Your task to perform on an android device: turn off picture-in-picture Image 0: 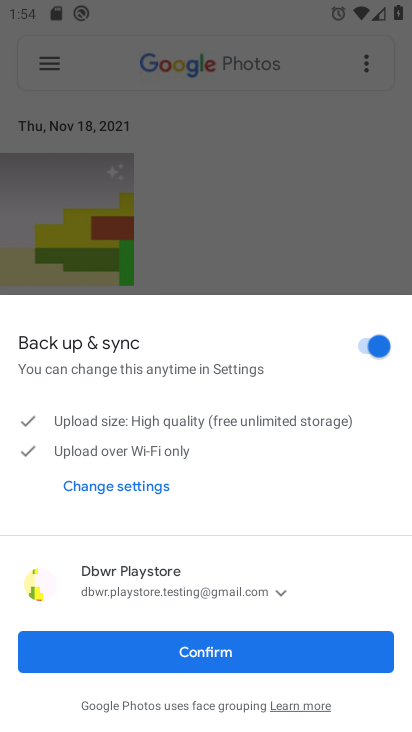
Step 0: press home button
Your task to perform on an android device: turn off picture-in-picture Image 1: 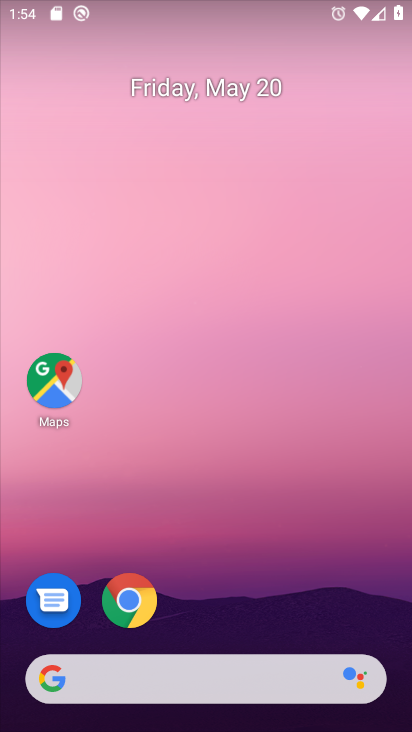
Step 1: click (135, 599)
Your task to perform on an android device: turn off picture-in-picture Image 2: 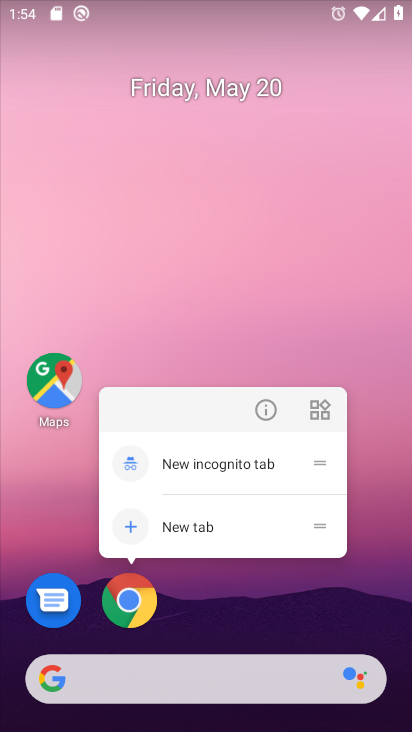
Step 2: click (268, 414)
Your task to perform on an android device: turn off picture-in-picture Image 3: 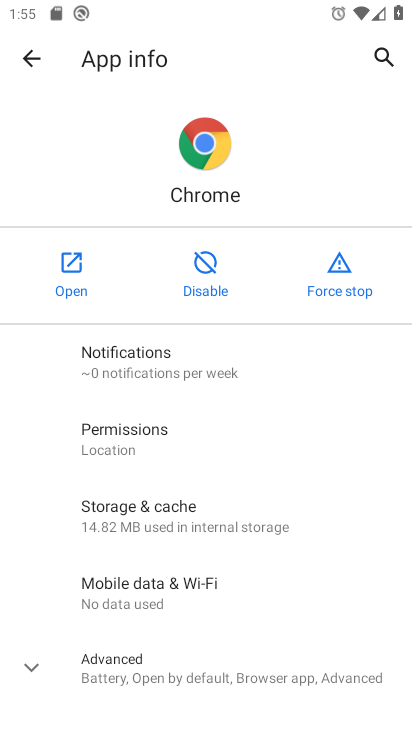
Step 3: drag from (148, 573) to (228, 238)
Your task to perform on an android device: turn off picture-in-picture Image 4: 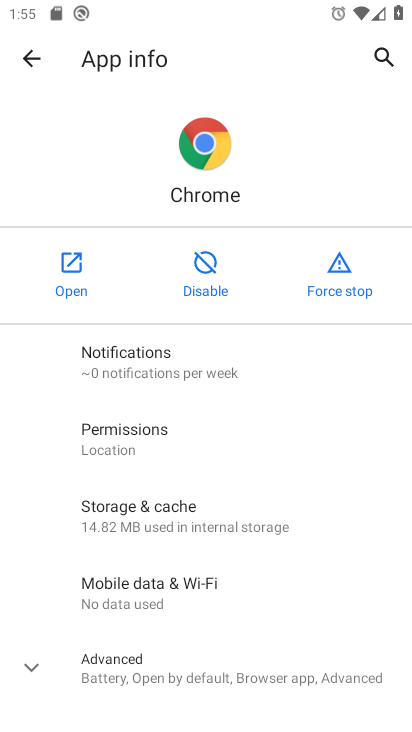
Step 4: click (100, 663)
Your task to perform on an android device: turn off picture-in-picture Image 5: 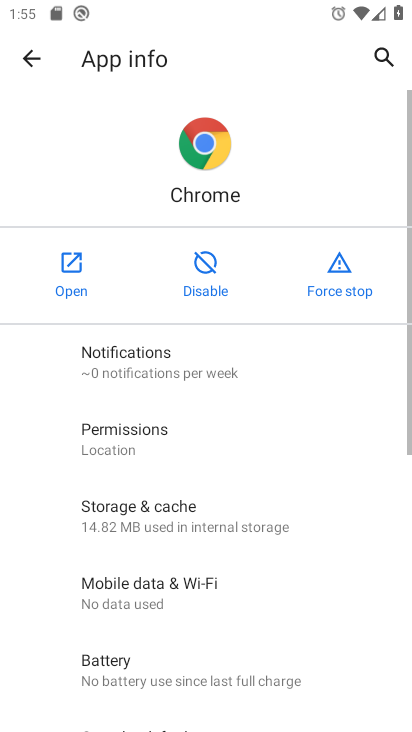
Step 5: drag from (162, 661) to (222, 362)
Your task to perform on an android device: turn off picture-in-picture Image 6: 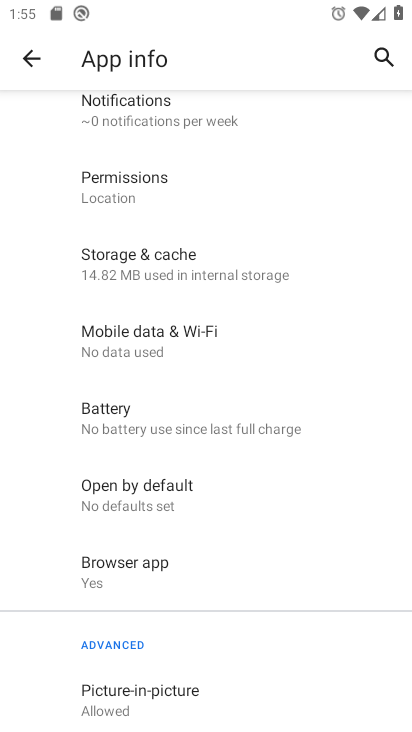
Step 6: drag from (187, 637) to (202, 531)
Your task to perform on an android device: turn off picture-in-picture Image 7: 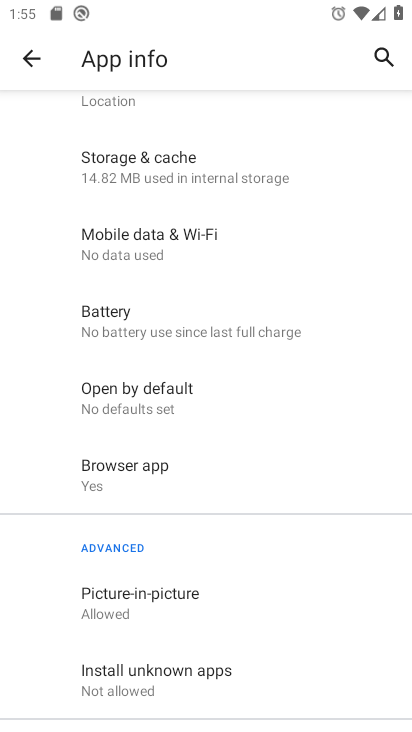
Step 7: click (157, 608)
Your task to perform on an android device: turn off picture-in-picture Image 8: 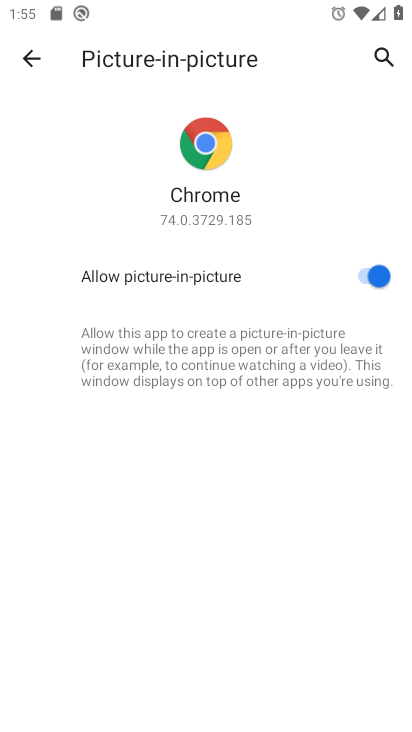
Step 8: click (356, 279)
Your task to perform on an android device: turn off picture-in-picture Image 9: 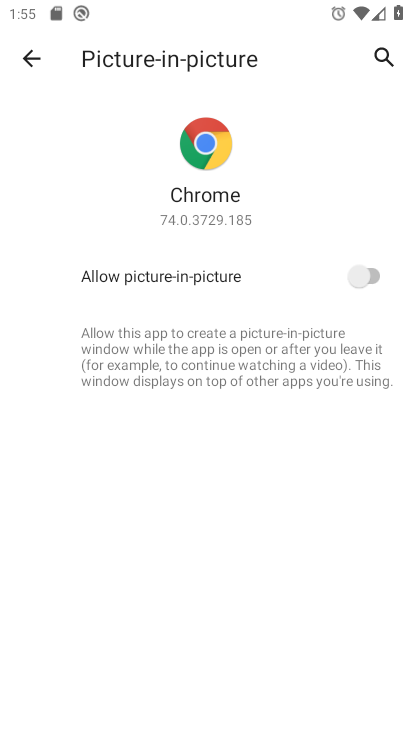
Step 9: task complete